Your task to perform on an android device: Open Yahoo.com Image 0: 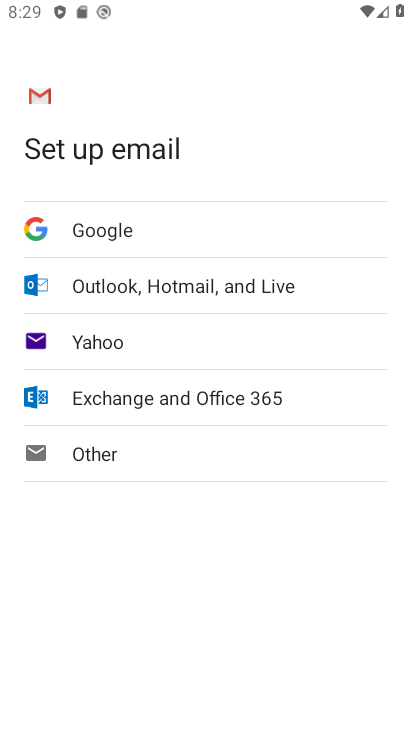
Step 0: press home button
Your task to perform on an android device: Open Yahoo.com Image 1: 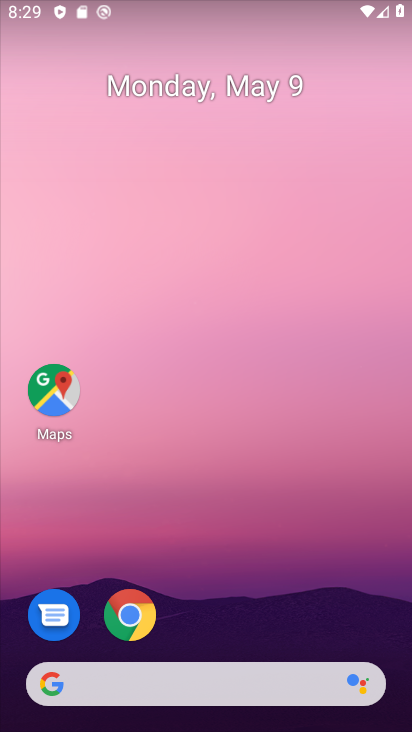
Step 1: click (136, 608)
Your task to perform on an android device: Open Yahoo.com Image 2: 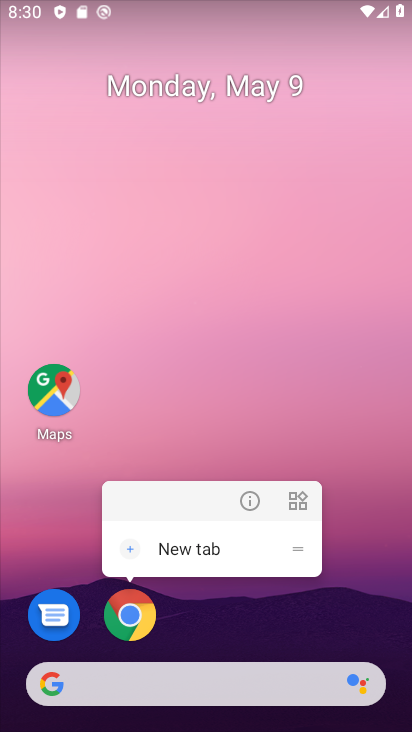
Step 2: click (136, 608)
Your task to perform on an android device: Open Yahoo.com Image 3: 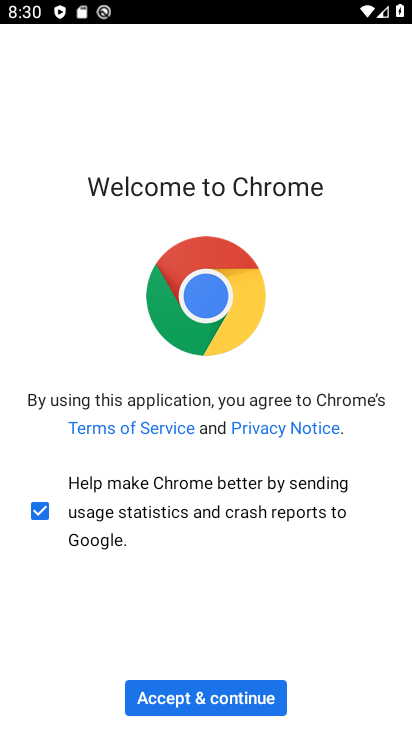
Step 3: click (231, 687)
Your task to perform on an android device: Open Yahoo.com Image 4: 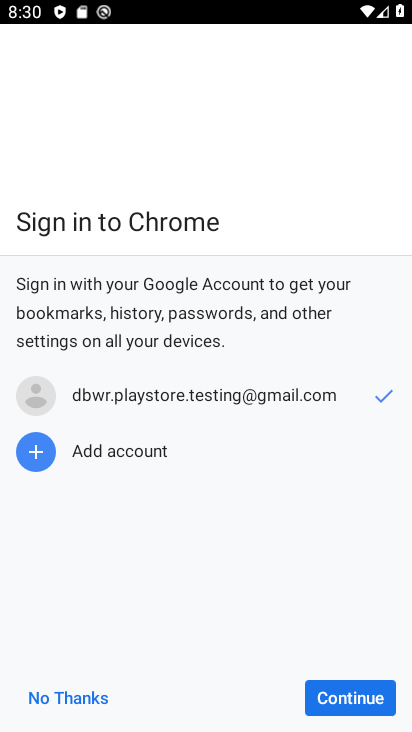
Step 4: click (321, 702)
Your task to perform on an android device: Open Yahoo.com Image 5: 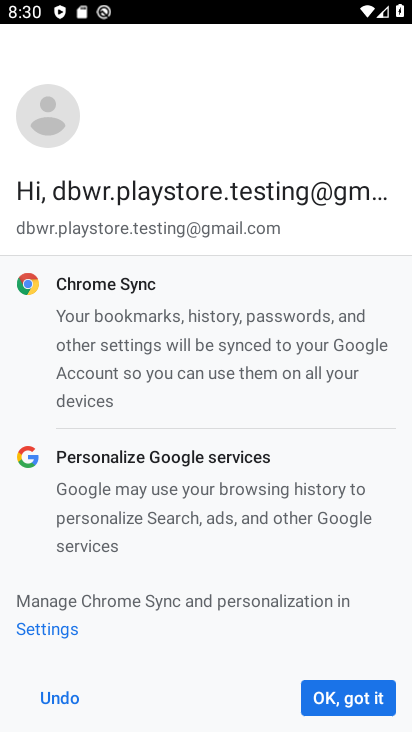
Step 5: click (321, 702)
Your task to perform on an android device: Open Yahoo.com Image 6: 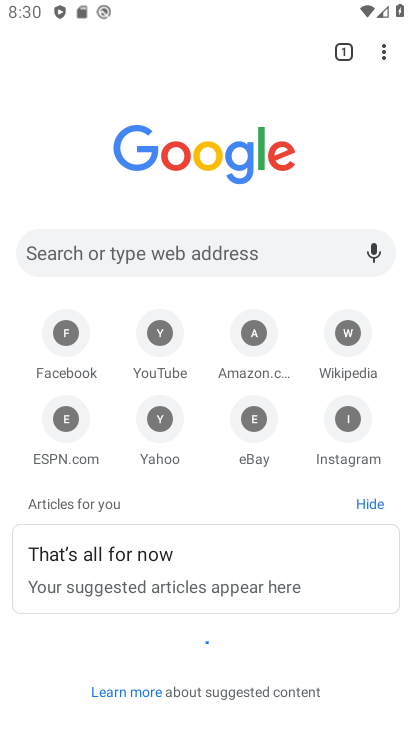
Step 6: click (157, 431)
Your task to perform on an android device: Open Yahoo.com Image 7: 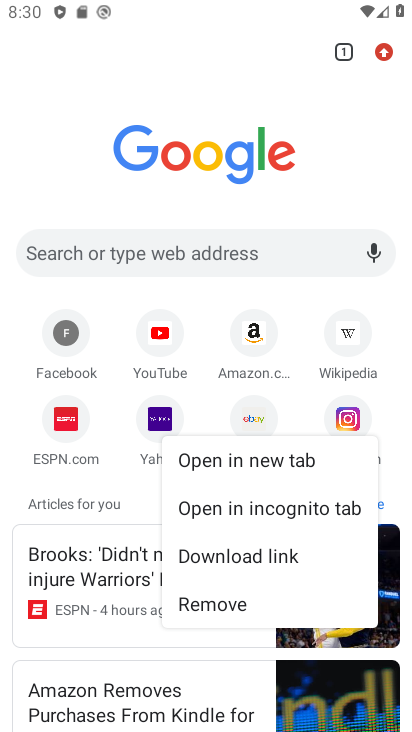
Step 7: click (168, 428)
Your task to perform on an android device: Open Yahoo.com Image 8: 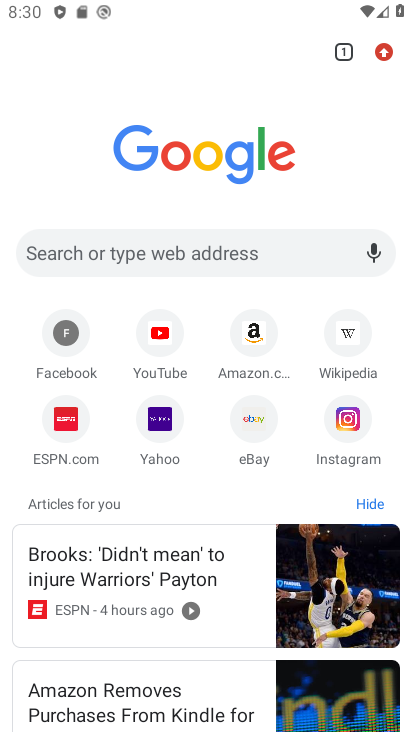
Step 8: click (168, 428)
Your task to perform on an android device: Open Yahoo.com Image 9: 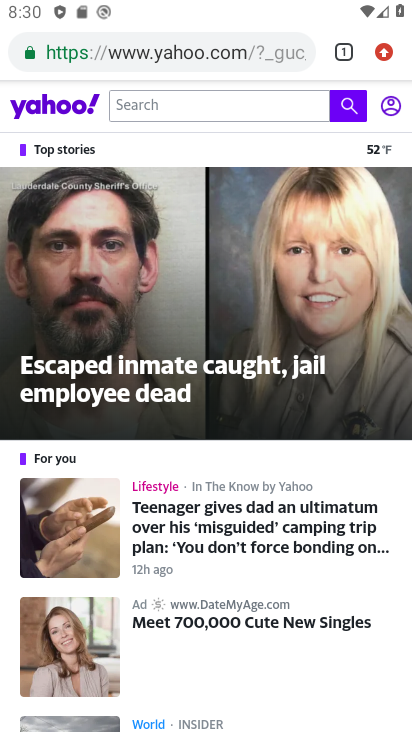
Step 9: task complete